Your task to perform on an android device: Search for the best rated tool bag on Lowe's. Image 0: 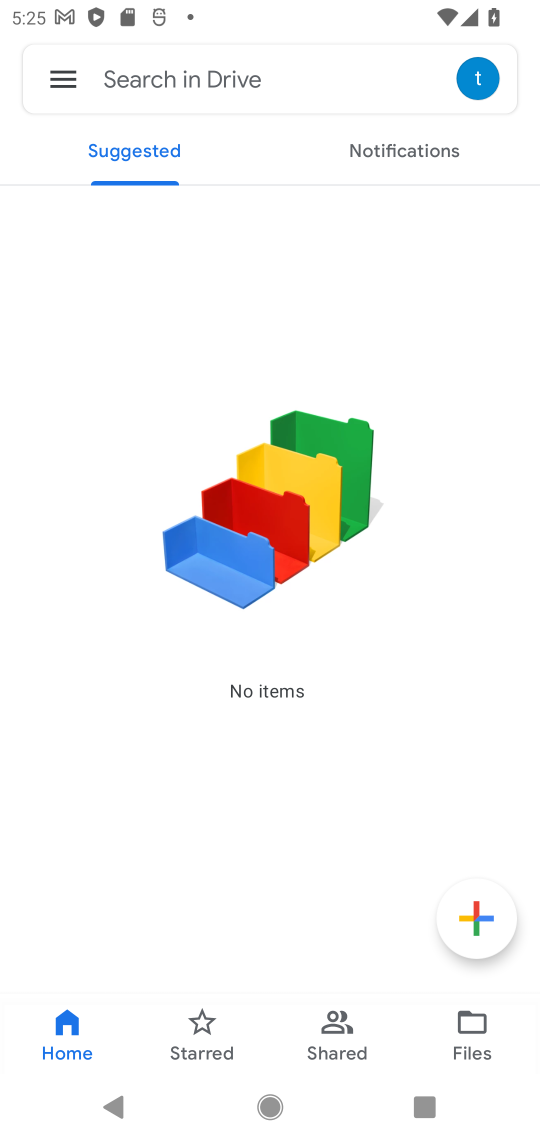
Step 0: press home button
Your task to perform on an android device: Search for the best rated tool bag on Lowe's. Image 1: 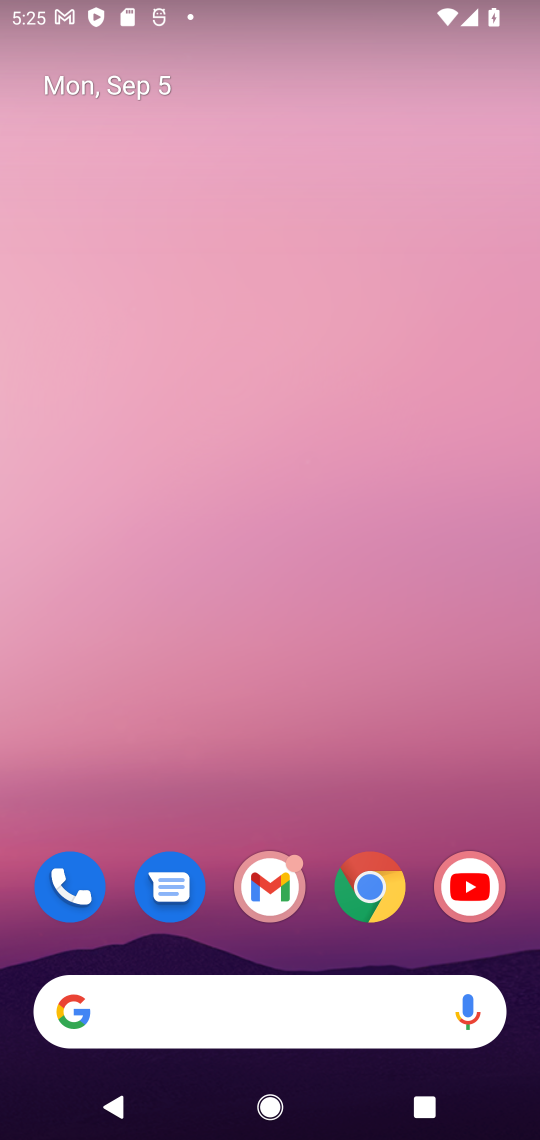
Step 1: drag from (249, 277) to (232, 160)
Your task to perform on an android device: Search for the best rated tool bag on Lowe's. Image 2: 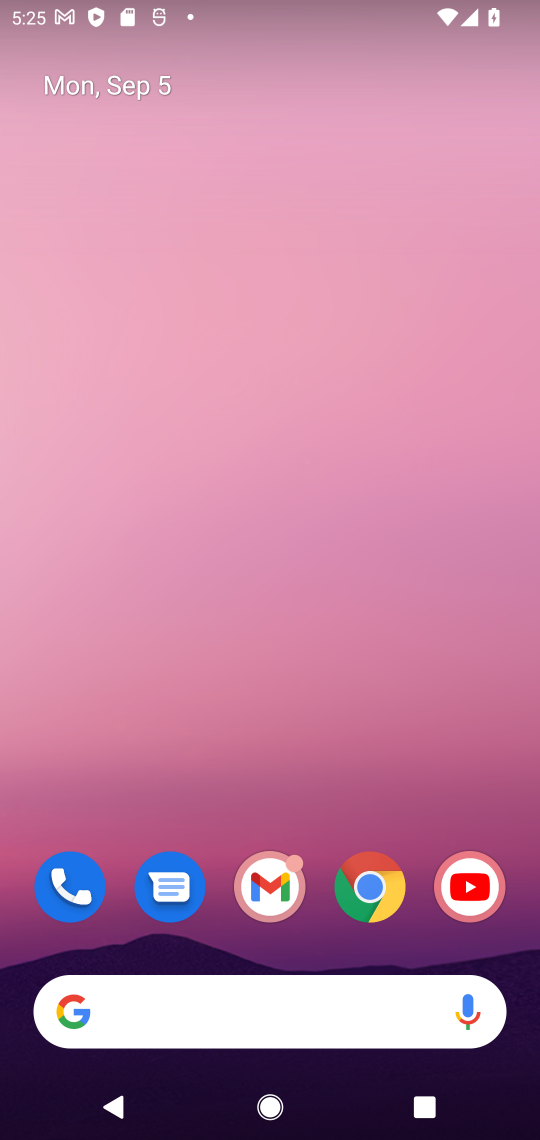
Step 2: drag from (310, 818) to (320, 109)
Your task to perform on an android device: Search for the best rated tool bag on Lowe's. Image 3: 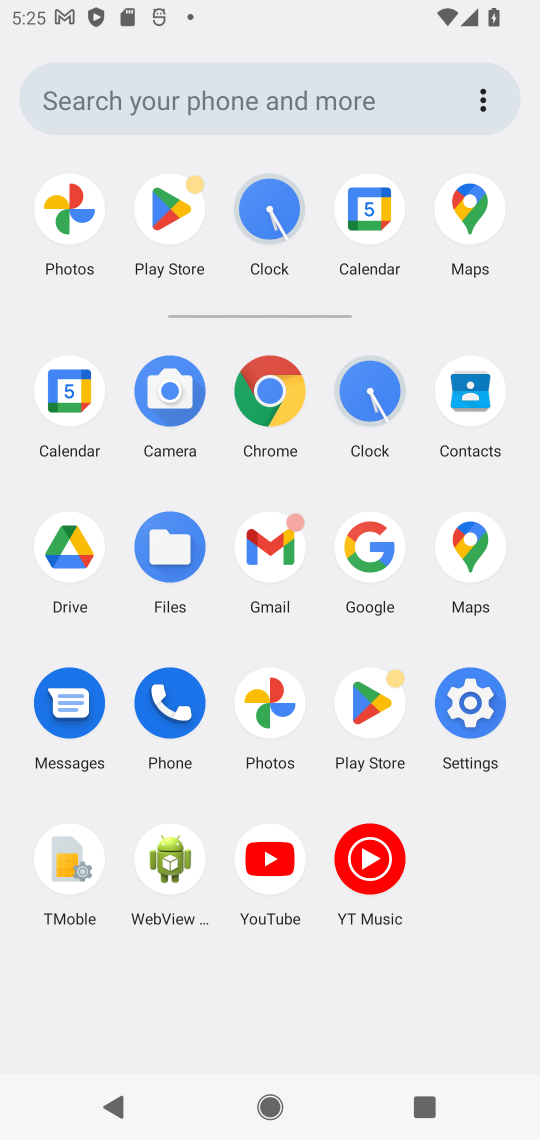
Step 3: click (266, 388)
Your task to perform on an android device: Search for the best rated tool bag on Lowe's. Image 4: 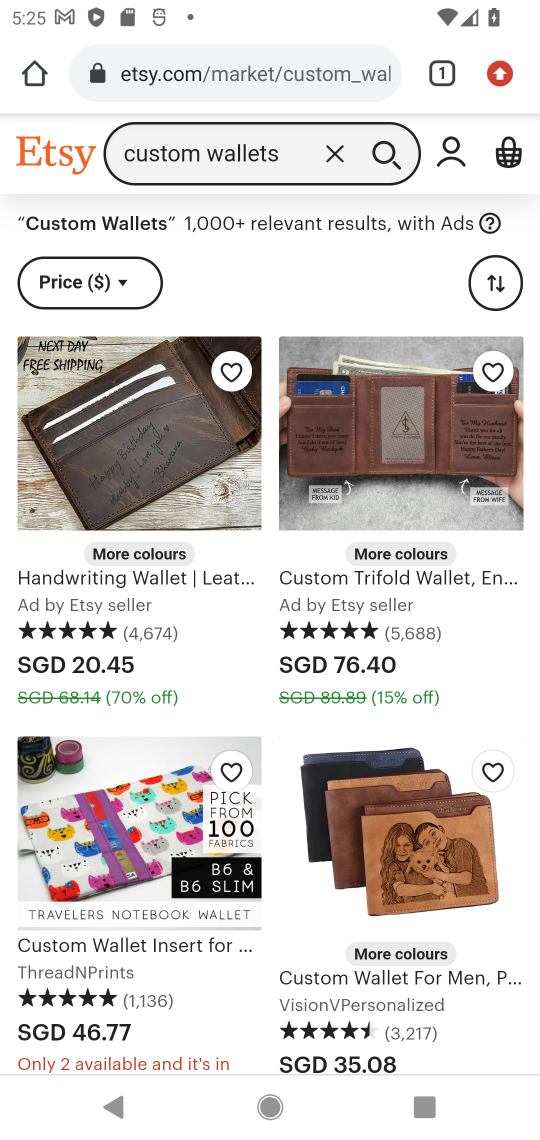
Step 4: click (270, 80)
Your task to perform on an android device: Search for the best rated tool bag on Lowe's. Image 5: 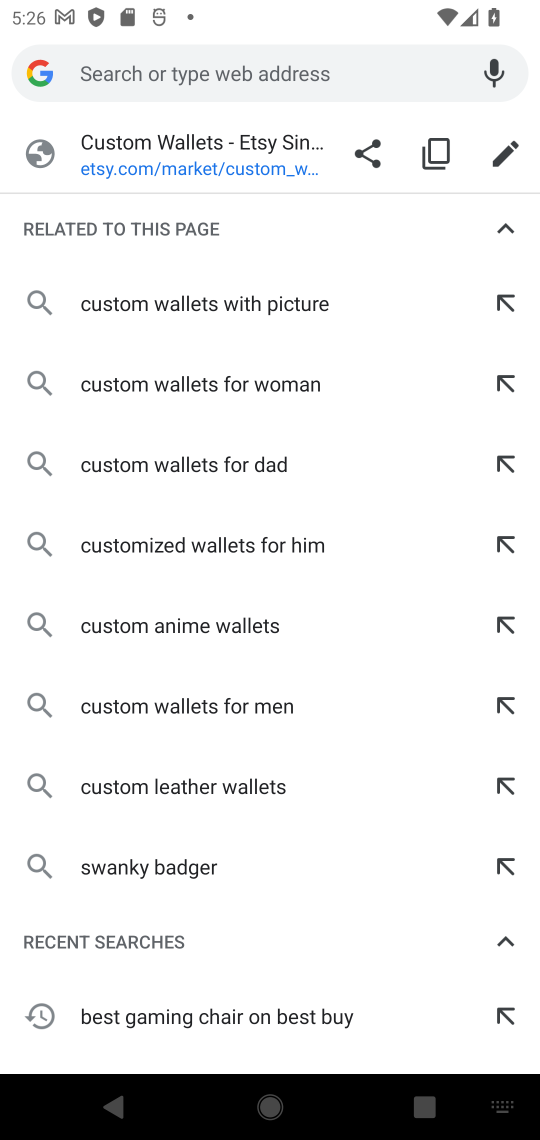
Step 5: type "best rated tool bag on Lowe's"
Your task to perform on an android device: Search for the best rated tool bag on Lowe's. Image 6: 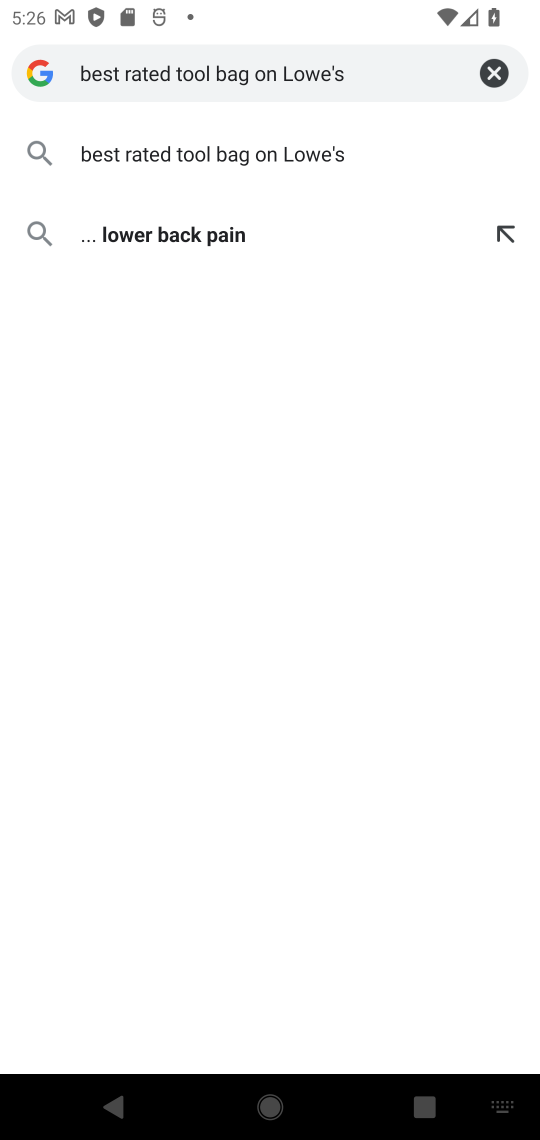
Step 6: press enter
Your task to perform on an android device: Search for the best rated tool bag on Lowe's. Image 7: 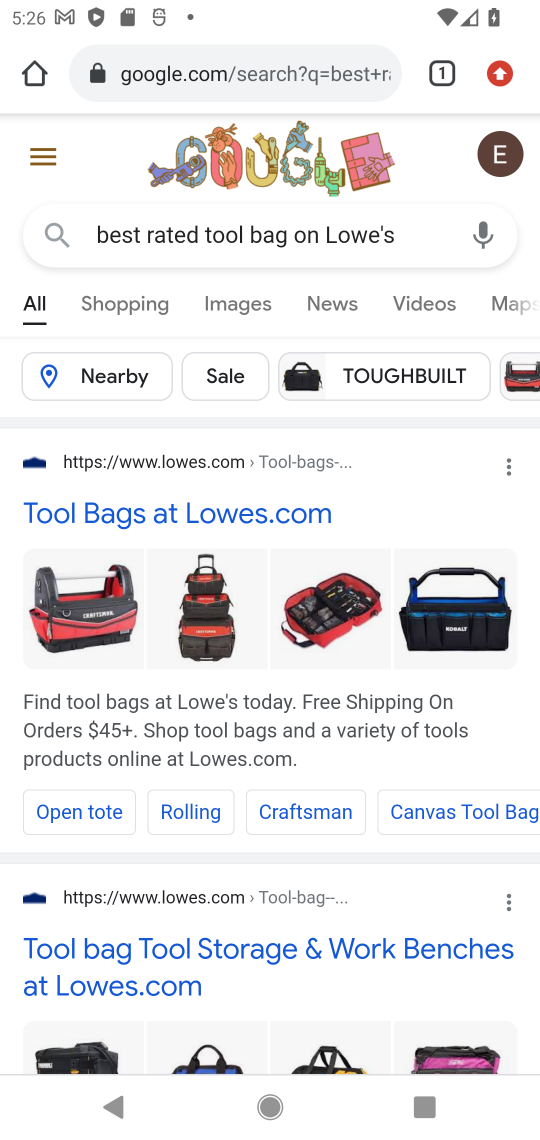
Step 7: click (153, 519)
Your task to perform on an android device: Search for the best rated tool bag on Lowe's. Image 8: 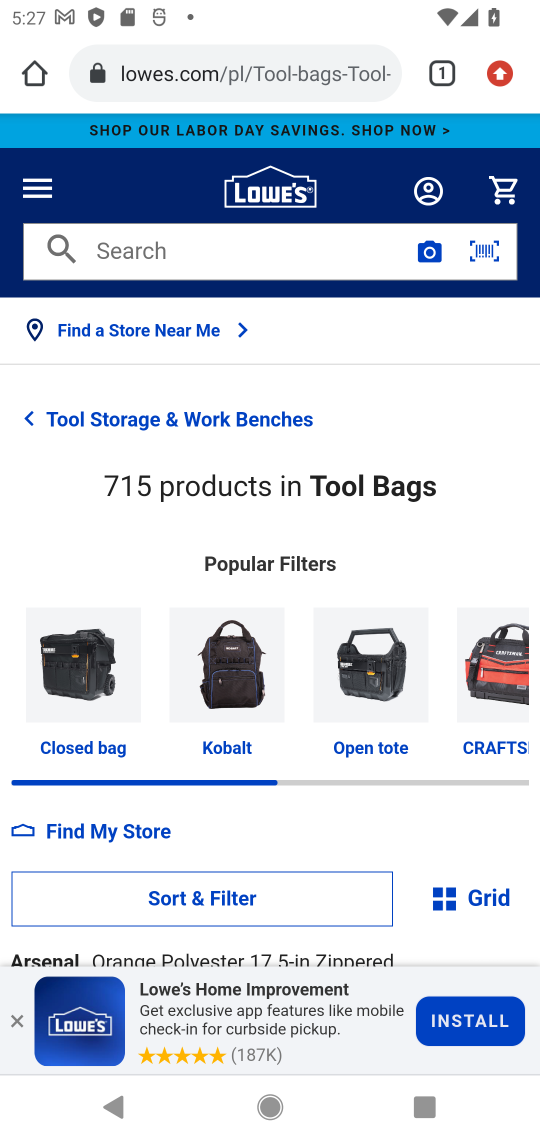
Step 8: task complete